Your task to perform on an android device: Open settings on Google Maps Image 0: 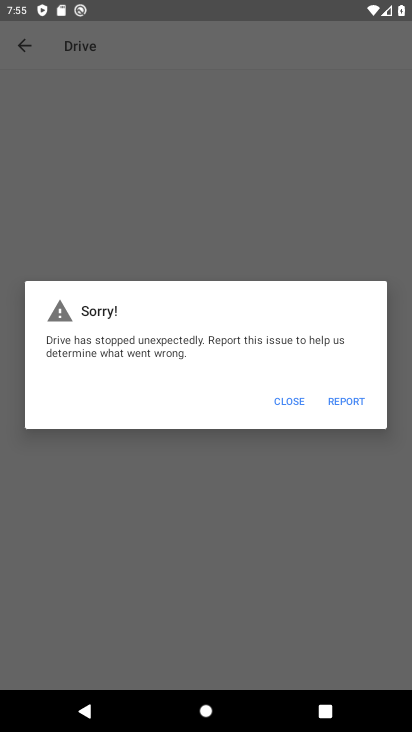
Step 0: press home button
Your task to perform on an android device: Open settings on Google Maps Image 1: 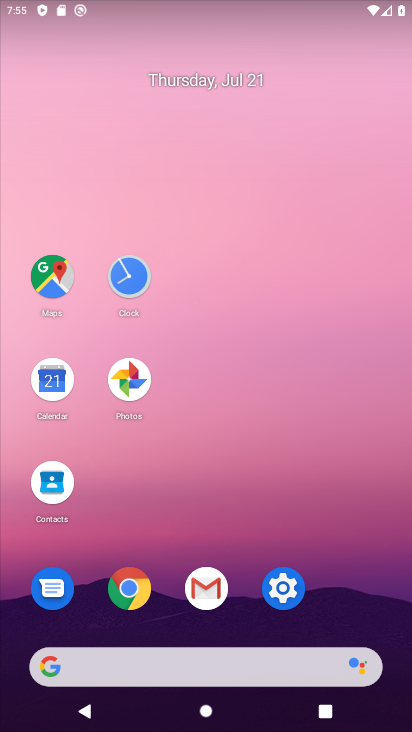
Step 1: click (46, 281)
Your task to perform on an android device: Open settings on Google Maps Image 2: 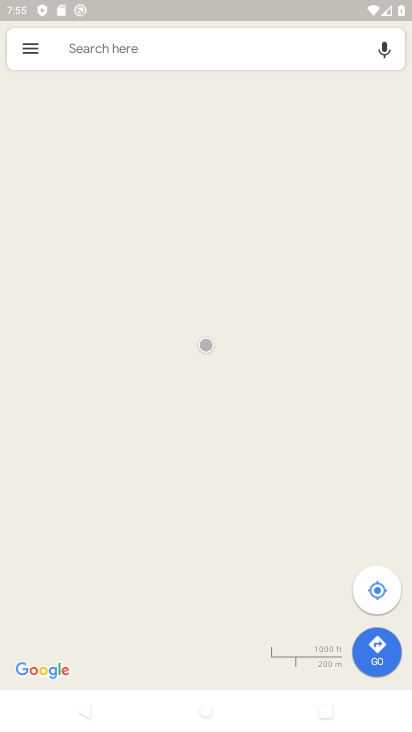
Step 2: click (29, 49)
Your task to perform on an android device: Open settings on Google Maps Image 3: 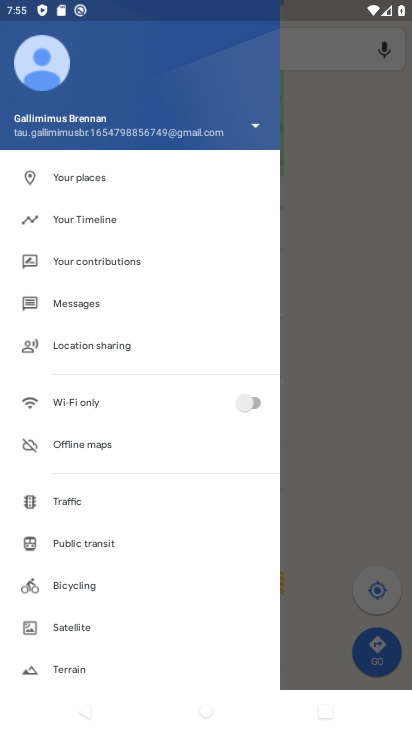
Step 3: drag from (138, 642) to (125, 217)
Your task to perform on an android device: Open settings on Google Maps Image 4: 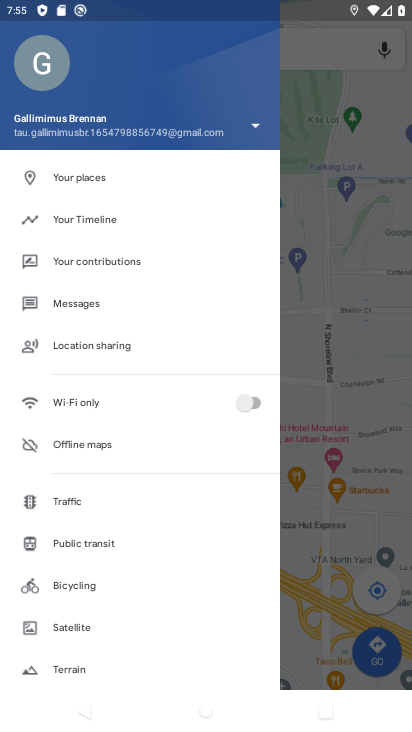
Step 4: drag from (187, 623) to (158, 226)
Your task to perform on an android device: Open settings on Google Maps Image 5: 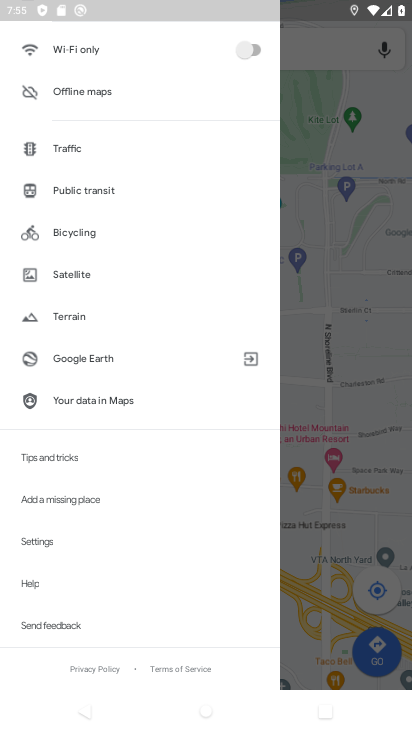
Step 5: click (32, 544)
Your task to perform on an android device: Open settings on Google Maps Image 6: 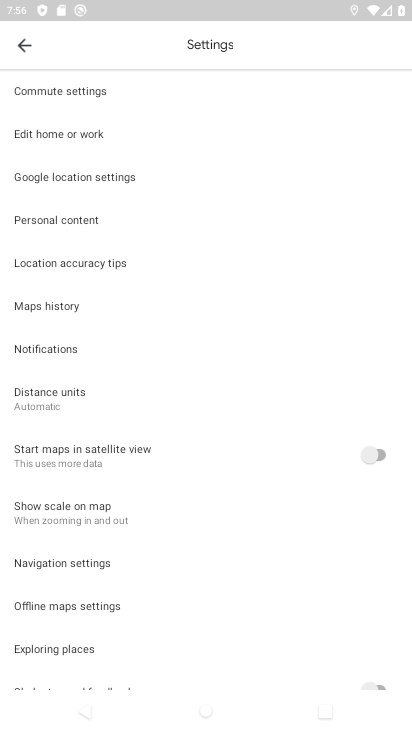
Step 6: task complete